Your task to perform on an android device: stop showing notifications on the lock screen Image 0: 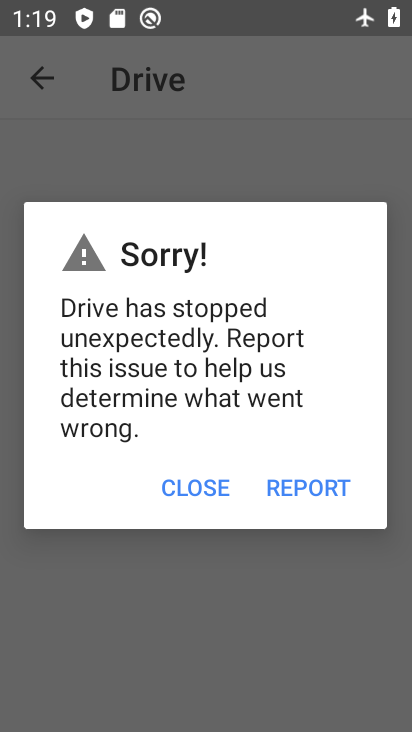
Step 0: click (200, 484)
Your task to perform on an android device: stop showing notifications on the lock screen Image 1: 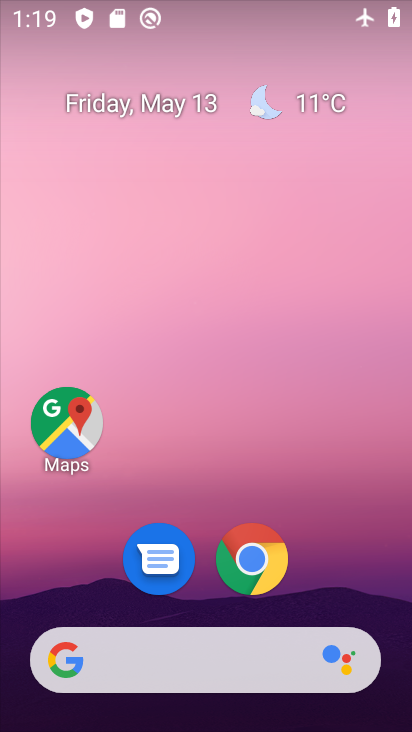
Step 1: press home button
Your task to perform on an android device: stop showing notifications on the lock screen Image 2: 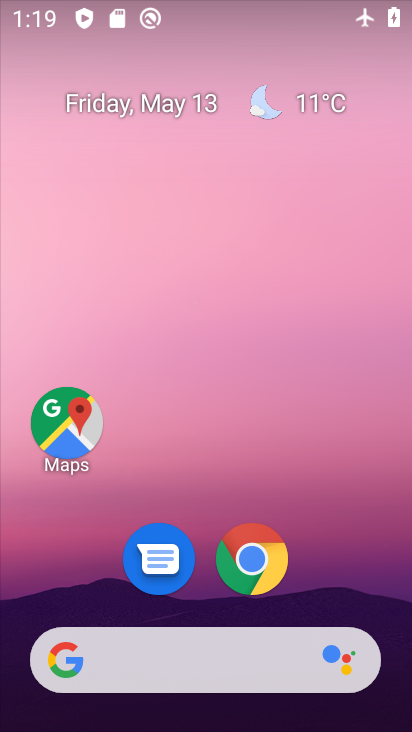
Step 2: drag from (361, 502) to (345, 350)
Your task to perform on an android device: stop showing notifications on the lock screen Image 3: 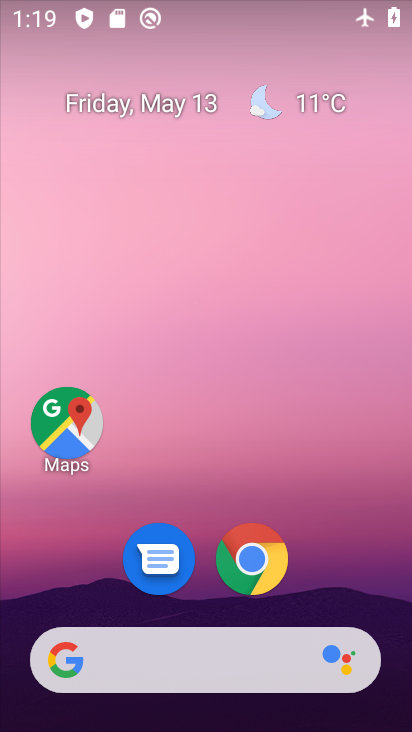
Step 3: drag from (388, 663) to (365, 351)
Your task to perform on an android device: stop showing notifications on the lock screen Image 4: 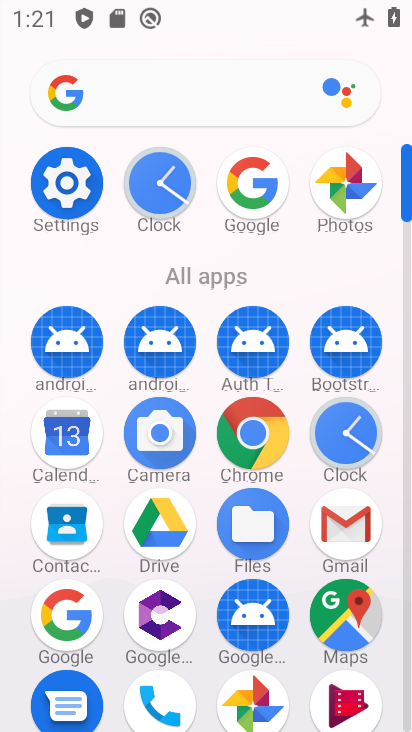
Step 4: click (25, 188)
Your task to perform on an android device: stop showing notifications on the lock screen Image 5: 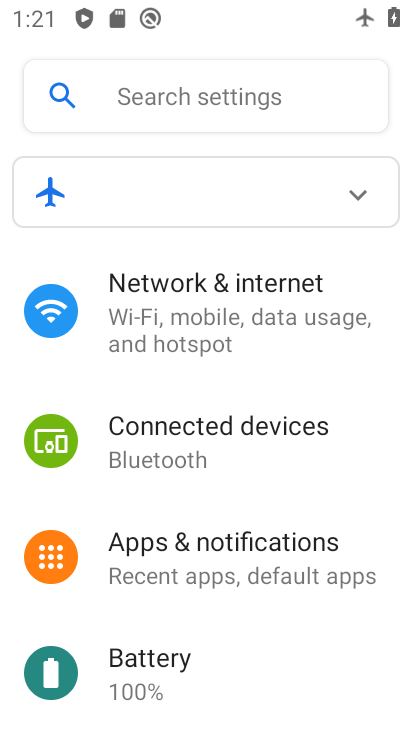
Step 5: drag from (300, 673) to (323, 444)
Your task to perform on an android device: stop showing notifications on the lock screen Image 6: 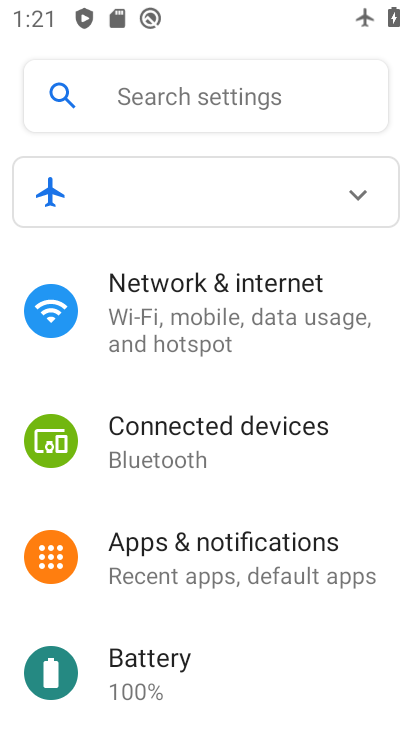
Step 6: drag from (302, 661) to (313, 397)
Your task to perform on an android device: stop showing notifications on the lock screen Image 7: 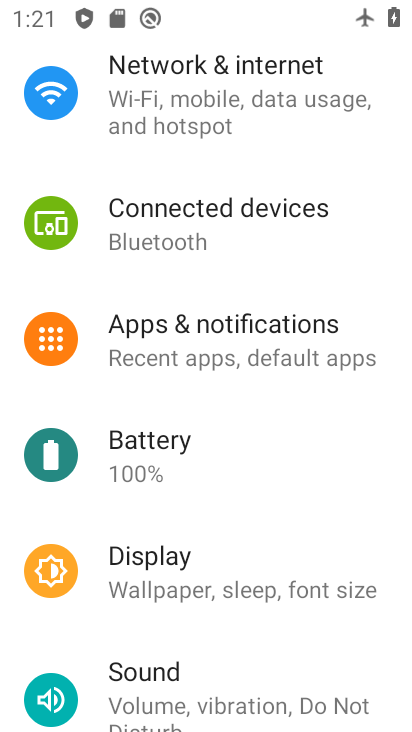
Step 7: drag from (254, 692) to (260, 484)
Your task to perform on an android device: stop showing notifications on the lock screen Image 8: 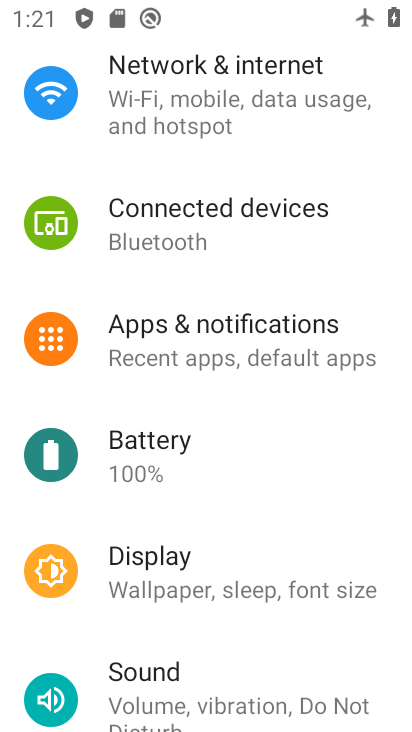
Step 8: drag from (262, 650) to (257, 442)
Your task to perform on an android device: stop showing notifications on the lock screen Image 9: 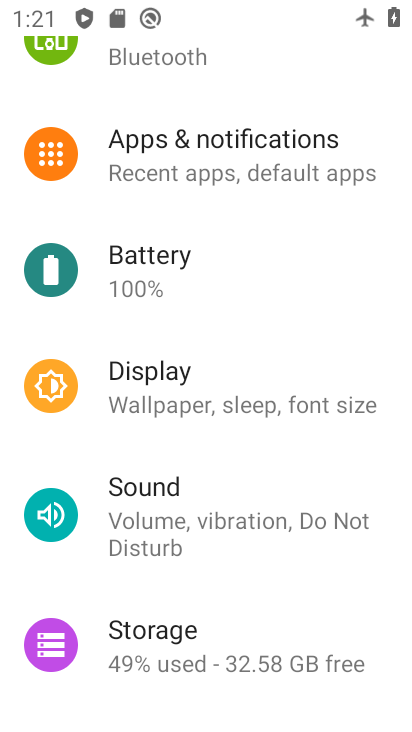
Step 9: drag from (275, 633) to (279, 354)
Your task to perform on an android device: stop showing notifications on the lock screen Image 10: 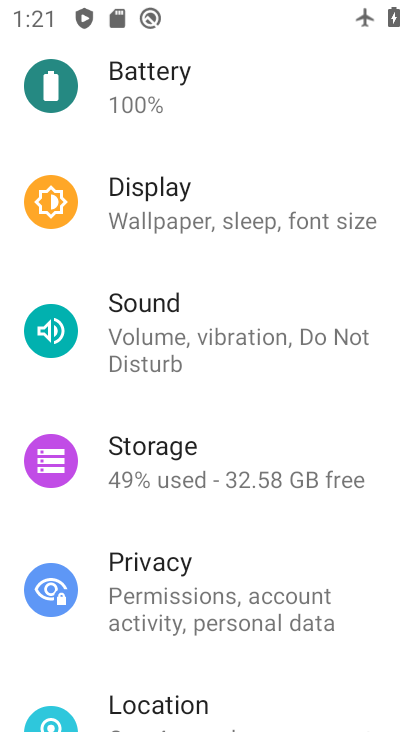
Step 10: drag from (270, 178) to (315, 381)
Your task to perform on an android device: stop showing notifications on the lock screen Image 11: 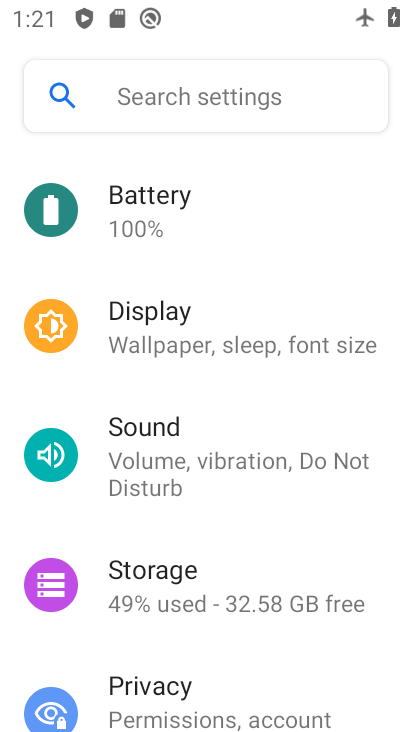
Step 11: drag from (264, 192) to (272, 347)
Your task to perform on an android device: stop showing notifications on the lock screen Image 12: 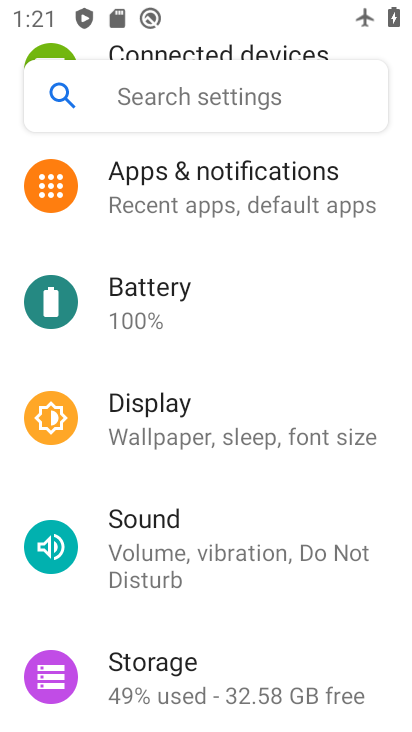
Step 12: click (230, 189)
Your task to perform on an android device: stop showing notifications on the lock screen Image 13: 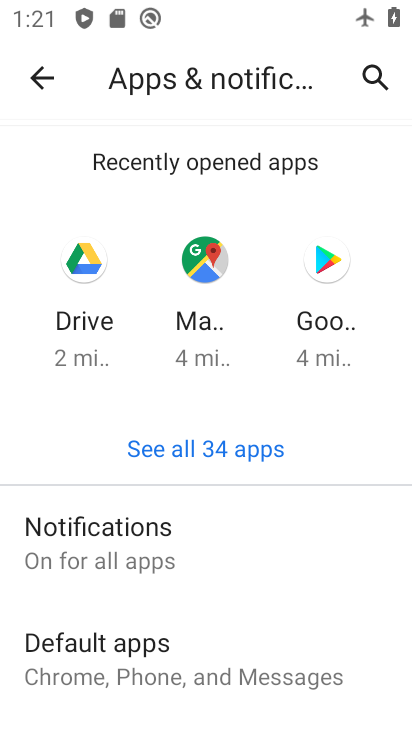
Step 13: click (96, 543)
Your task to perform on an android device: stop showing notifications on the lock screen Image 14: 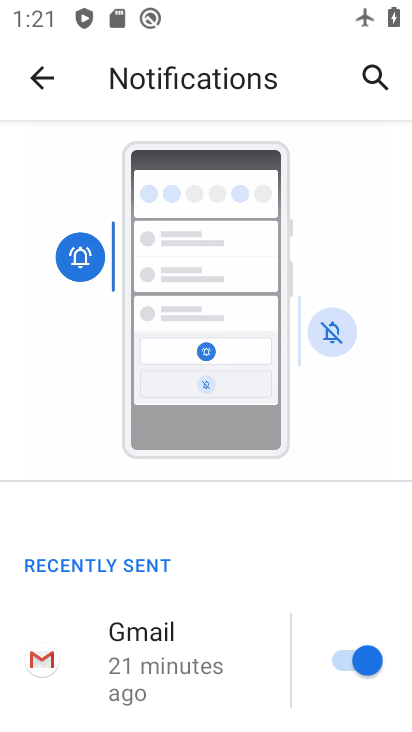
Step 14: drag from (243, 694) to (256, 538)
Your task to perform on an android device: stop showing notifications on the lock screen Image 15: 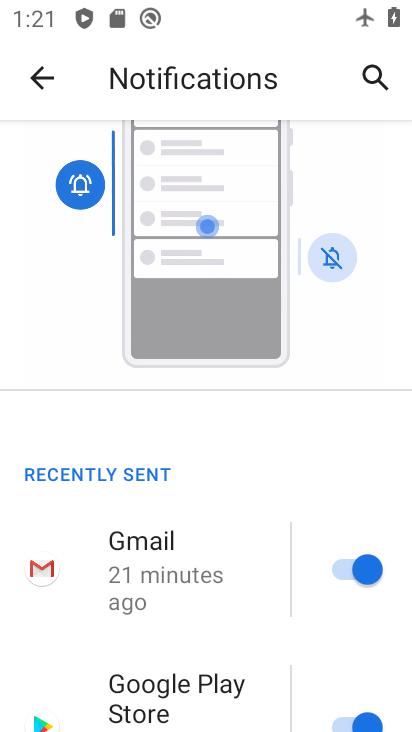
Step 15: drag from (260, 694) to (241, 363)
Your task to perform on an android device: stop showing notifications on the lock screen Image 16: 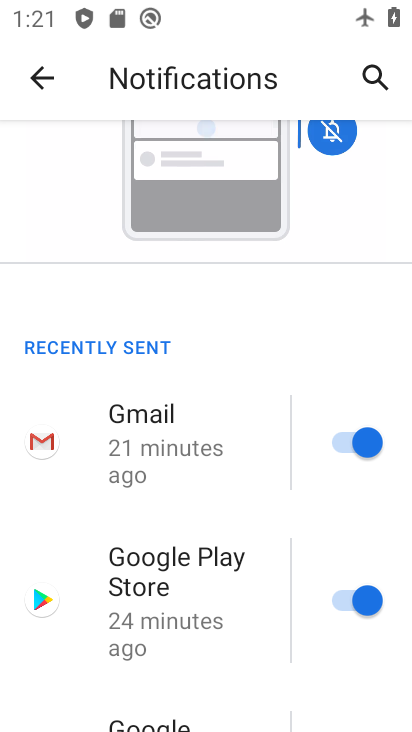
Step 16: drag from (272, 709) to (276, 524)
Your task to perform on an android device: stop showing notifications on the lock screen Image 17: 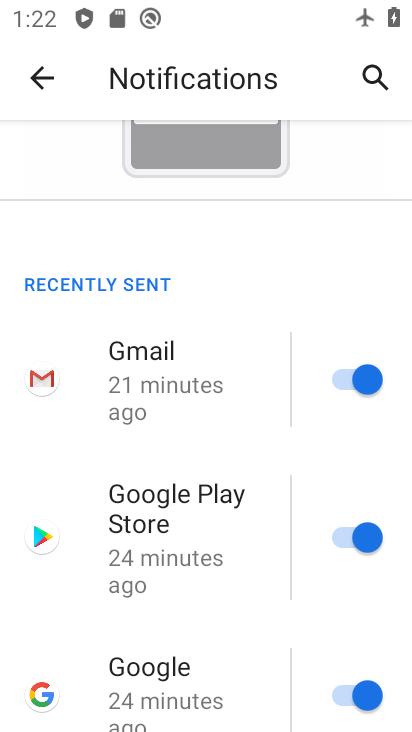
Step 17: drag from (274, 700) to (293, 402)
Your task to perform on an android device: stop showing notifications on the lock screen Image 18: 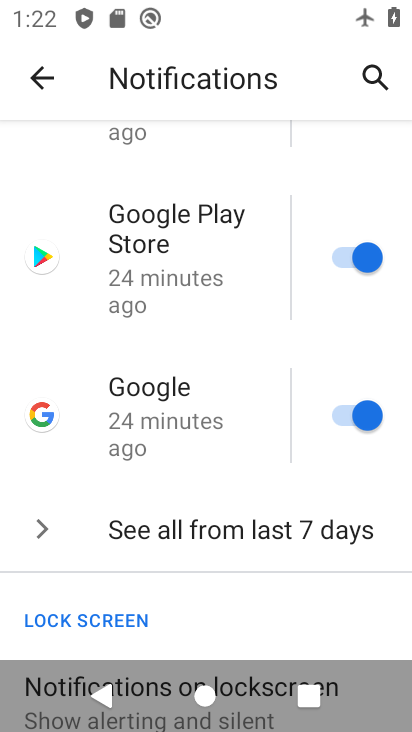
Step 18: drag from (205, 605) to (214, 283)
Your task to perform on an android device: stop showing notifications on the lock screen Image 19: 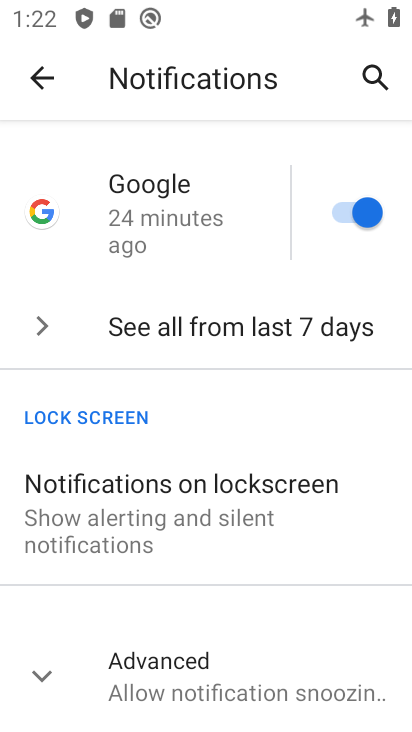
Step 19: click (109, 500)
Your task to perform on an android device: stop showing notifications on the lock screen Image 20: 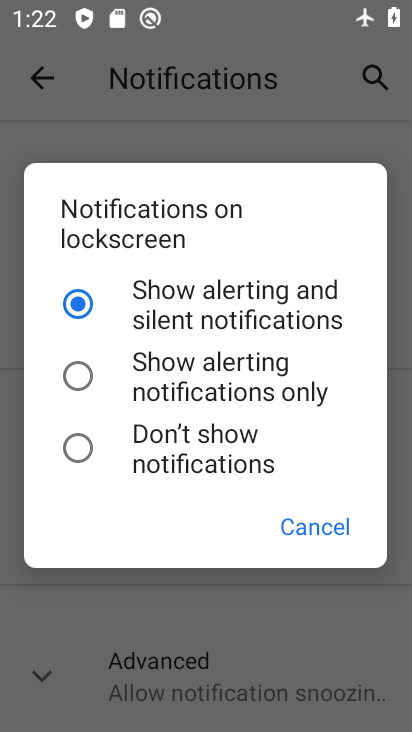
Step 20: click (79, 445)
Your task to perform on an android device: stop showing notifications on the lock screen Image 21: 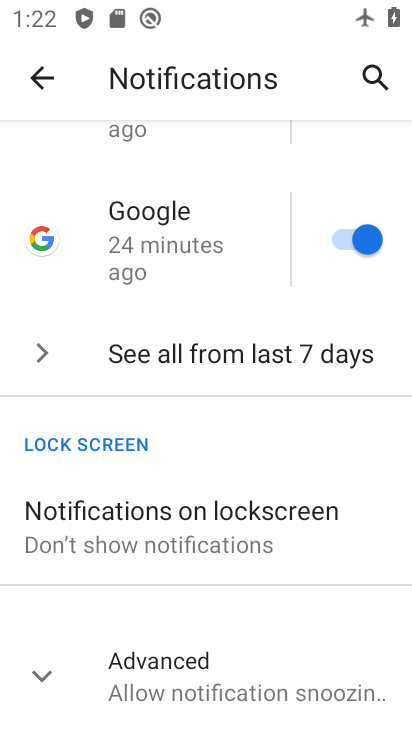
Step 21: click (135, 518)
Your task to perform on an android device: stop showing notifications on the lock screen Image 22: 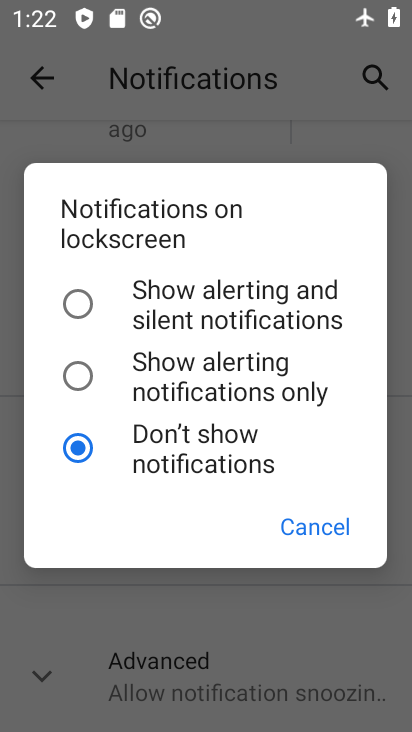
Step 22: task complete